Your task to perform on an android device: What's the weather? Image 0: 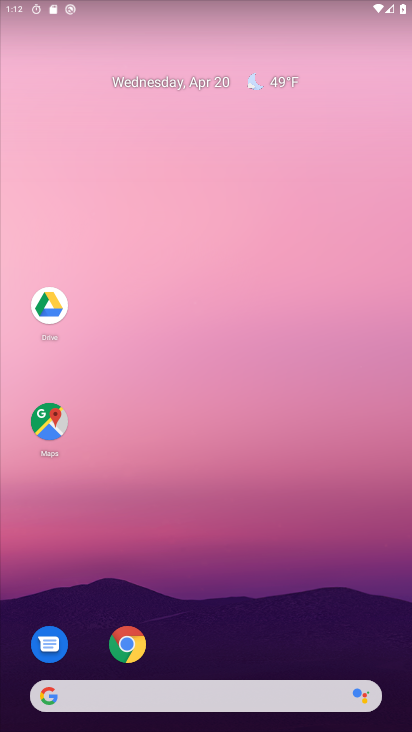
Step 0: click (276, 80)
Your task to perform on an android device: What's the weather? Image 1: 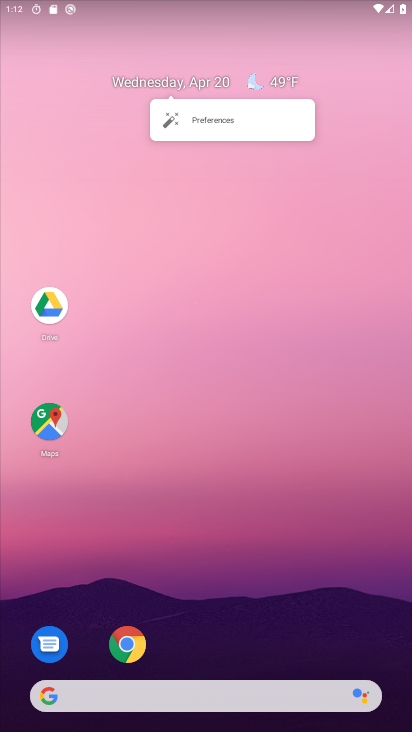
Step 1: click (262, 74)
Your task to perform on an android device: What's the weather? Image 2: 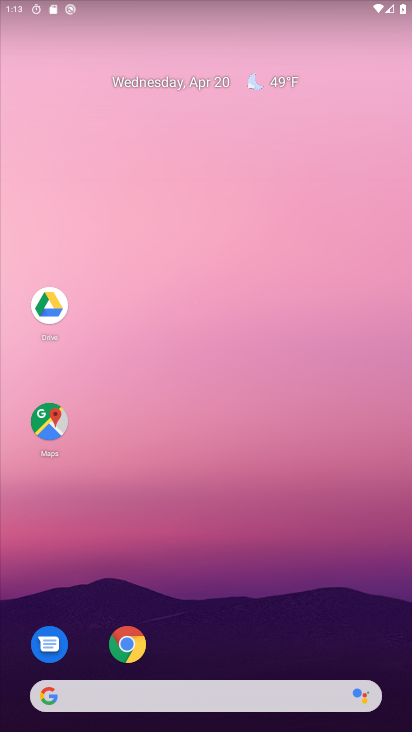
Step 2: click (280, 80)
Your task to perform on an android device: What's the weather? Image 3: 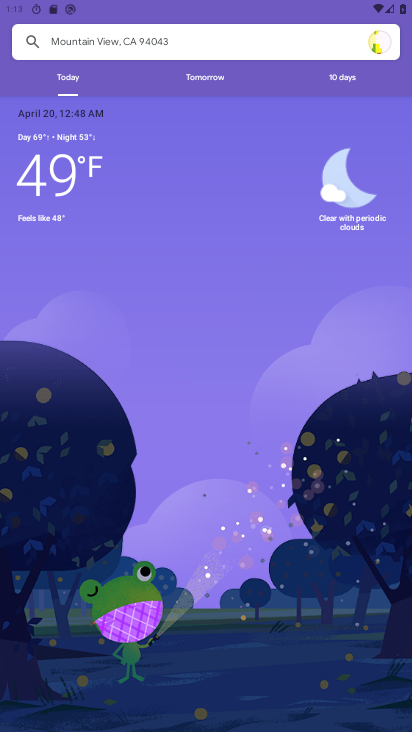
Step 3: task complete